Your task to perform on an android device: turn off picture-in-picture Image 0: 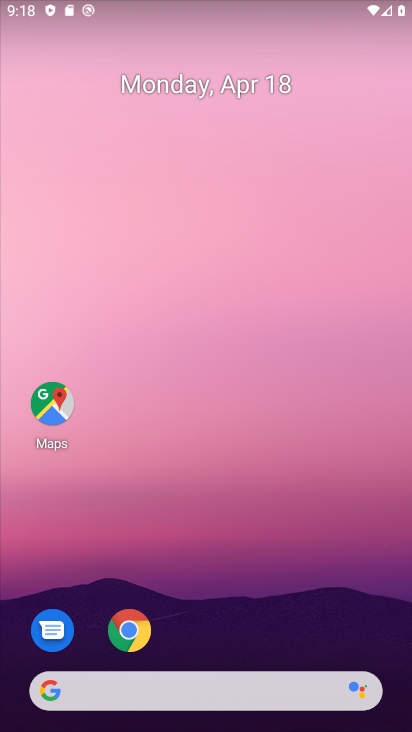
Step 0: drag from (197, 657) to (389, 105)
Your task to perform on an android device: turn off picture-in-picture Image 1: 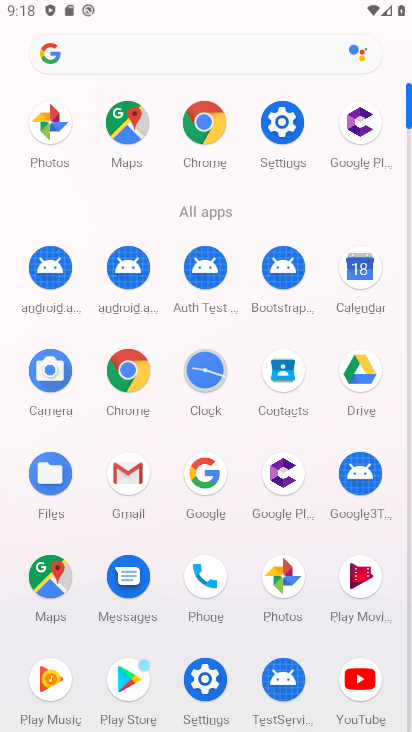
Step 1: click (284, 129)
Your task to perform on an android device: turn off picture-in-picture Image 2: 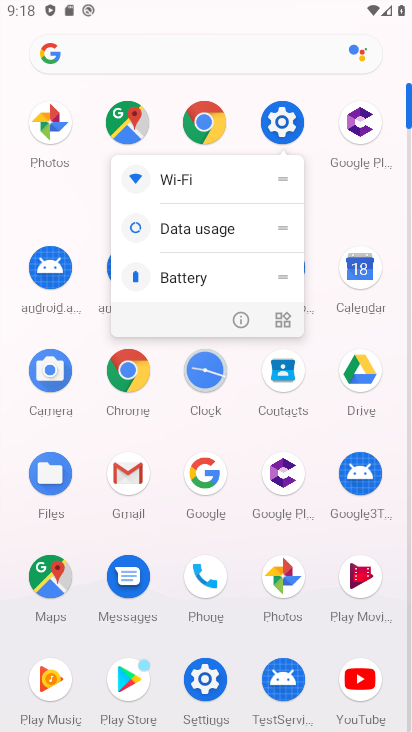
Step 2: click (290, 118)
Your task to perform on an android device: turn off picture-in-picture Image 3: 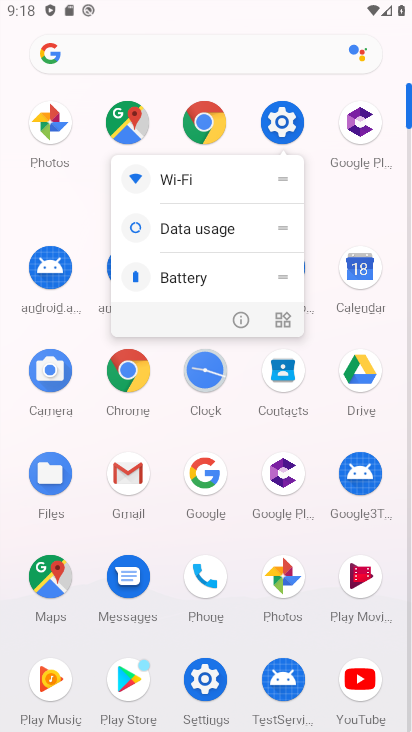
Step 3: click (271, 121)
Your task to perform on an android device: turn off picture-in-picture Image 4: 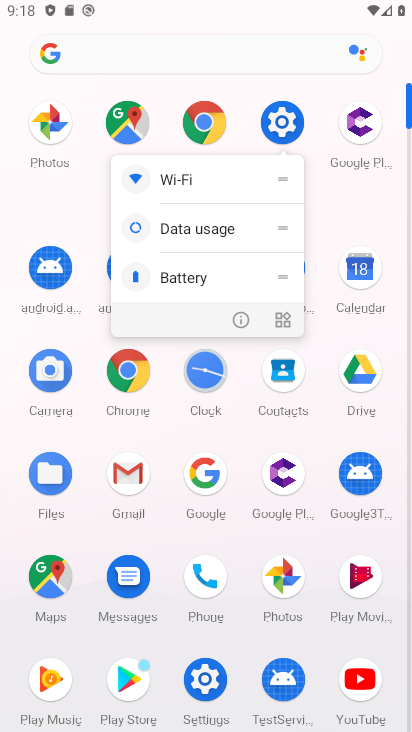
Step 4: click (285, 120)
Your task to perform on an android device: turn off picture-in-picture Image 5: 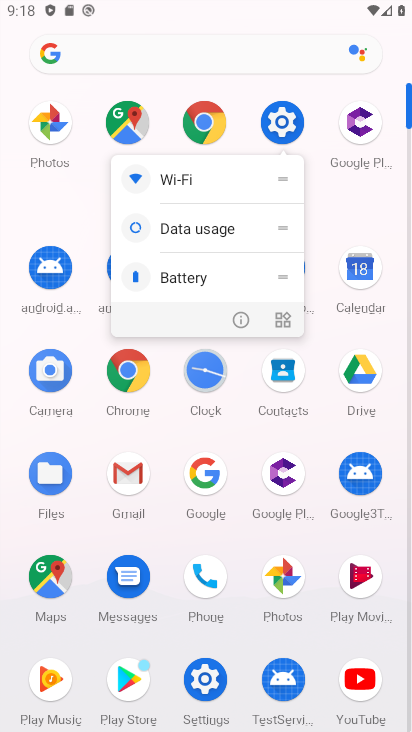
Step 5: click (287, 100)
Your task to perform on an android device: turn off picture-in-picture Image 6: 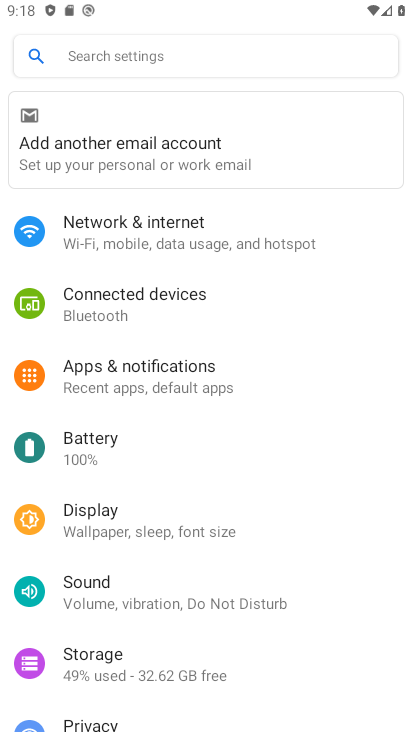
Step 6: click (223, 386)
Your task to perform on an android device: turn off picture-in-picture Image 7: 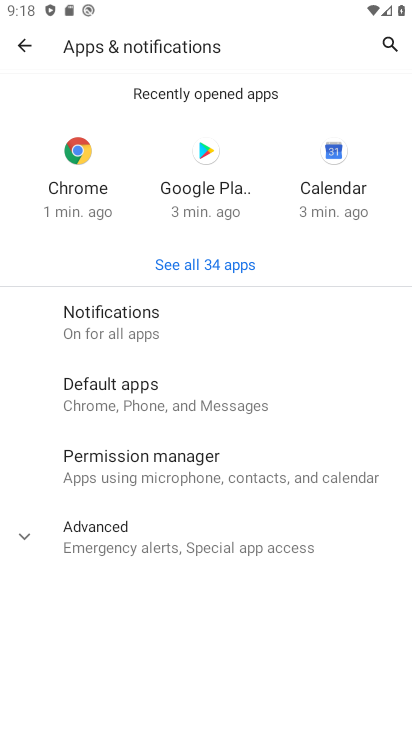
Step 7: click (249, 550)
Your task to perform on an android device: turn off picture-in-picture Image 8: 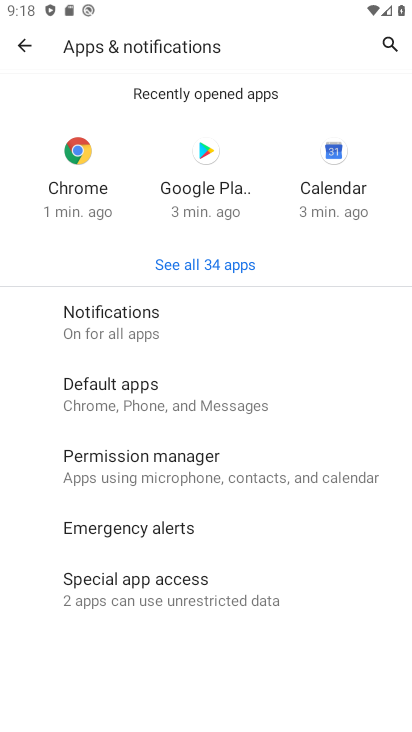
Step 8: drag from (261, 489) to (332, 352)
Your task to perform on an android device: turn off picture-in-picture Image 9: 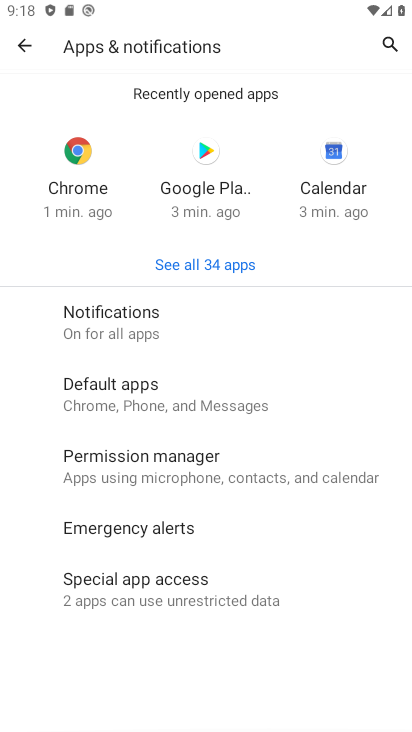
Step 9: click (206, 597)
Your task to perform on an android device: turn off picture-in-picture Image 10: 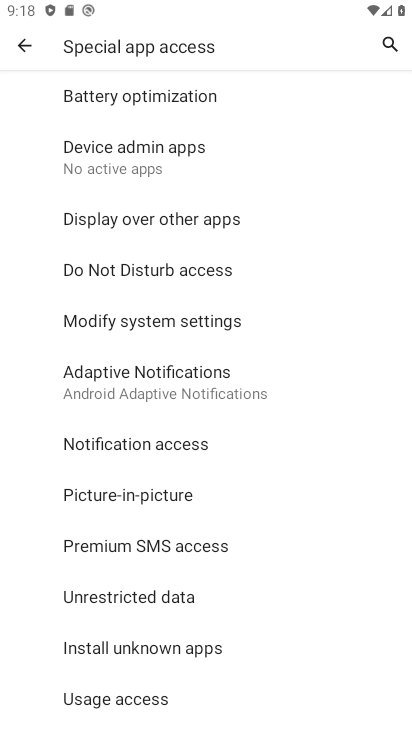
Step 10: click (194, 498)
Your task to perform on an android device: turn off picture-in-picture Image 11: 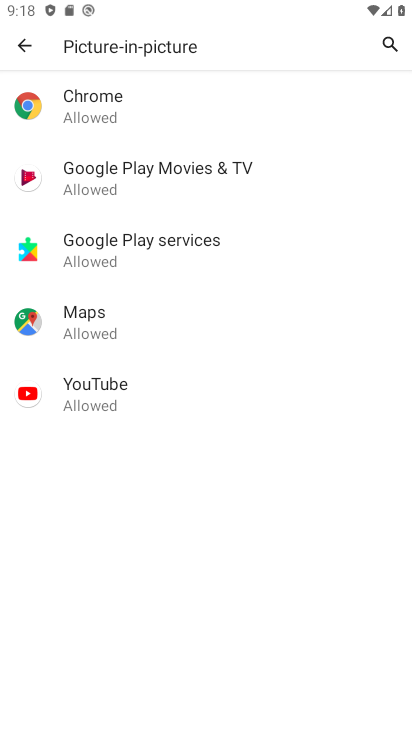
Step 11: click (245, 117)
Your task to perform on an android device: turn off picture-in-picture Image 12: 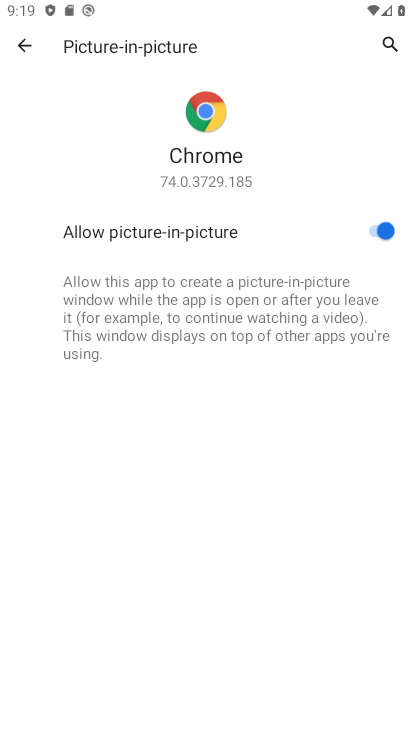
Step 12: click (375, 225)
Your task to perform on an android device: turn off picture-in-picture Image 13: 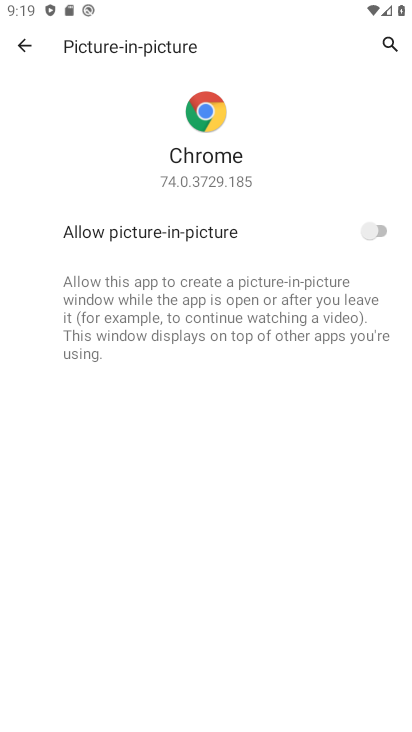
Step 13: click (33, 44)
Your task to perform on an android device: turn off picture-in-picture Image 14: 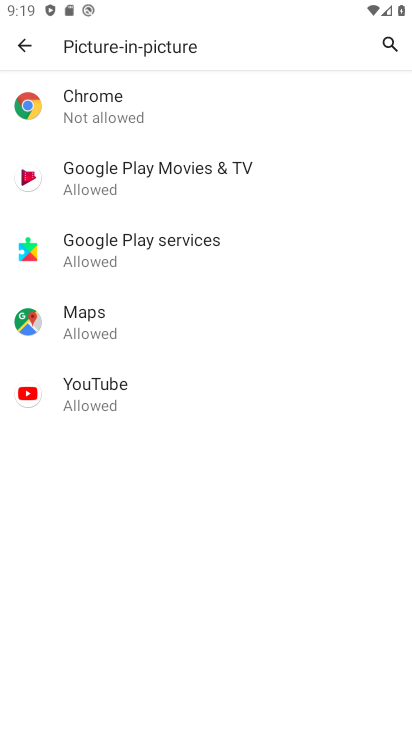
Step 14: click (155, 196)
Your task to perform on an android device: turn off picture-in-picture Image 15: 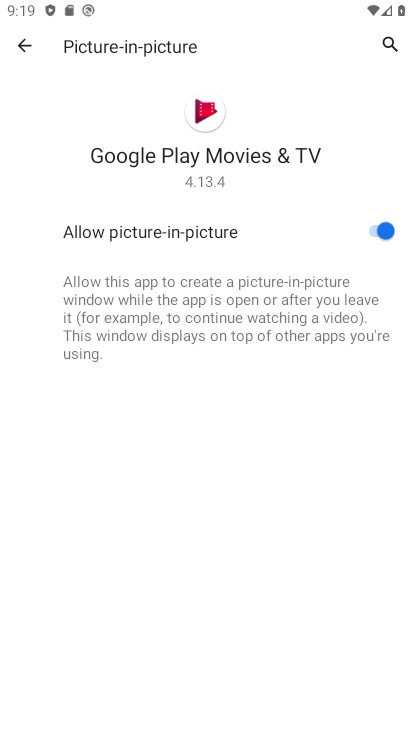
Step 15: click (364, 229)
Your task to perform on an android device: turn off picture-in-picture Image 16: 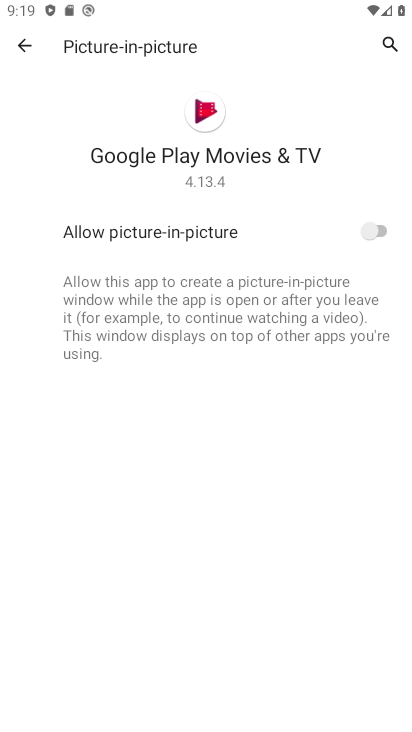
Step 16: press back button
Your task to perform on an android device: turn off picture-in-picture Image 17: 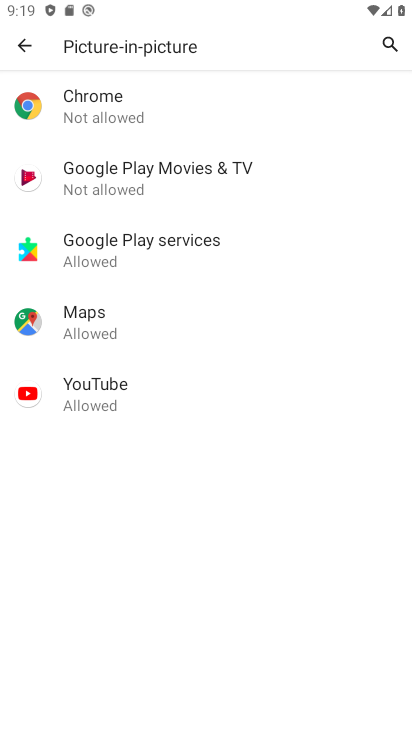
Step 17: click (192, 259)
Your task to perform on an android device: turn off picture-in-picture Image 18: 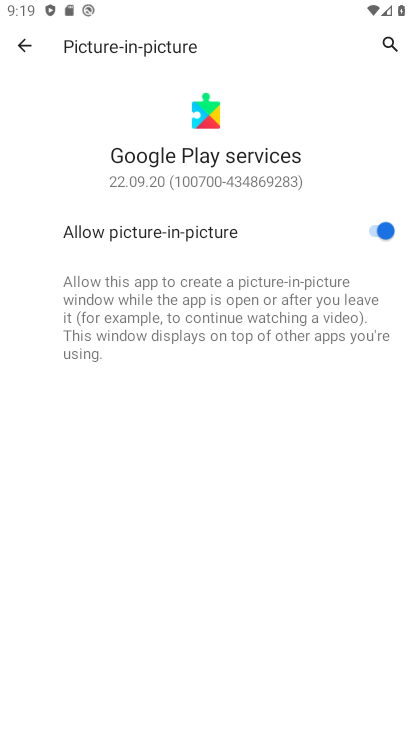
Step 18: click (384, 232)
Your task to perform on an android device: turn off picture-in-picture Image 19: 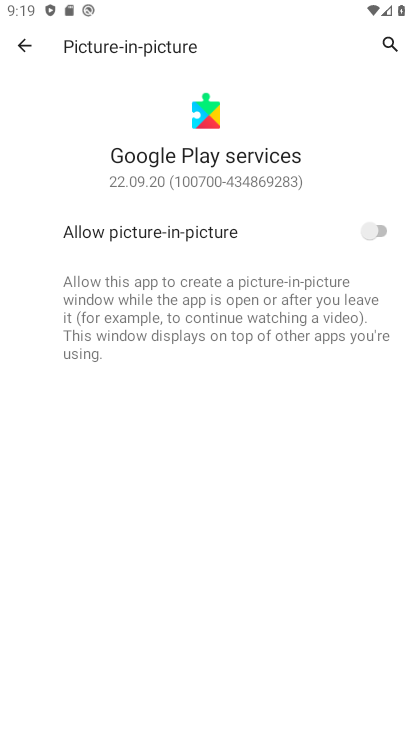
Step 19: press back button
Your task to perform on an android device: turn off picture-in-picture Image 20: 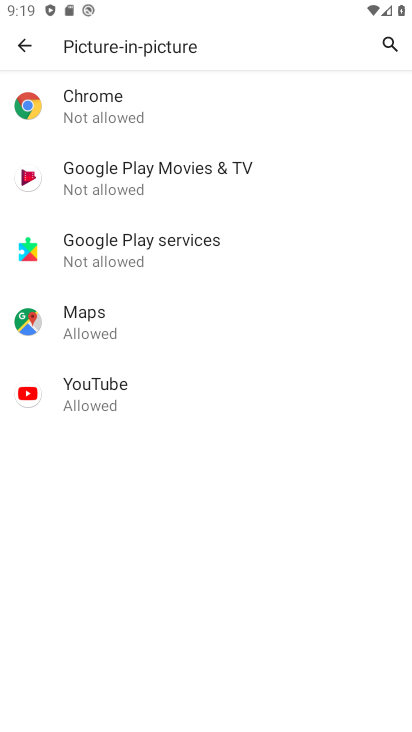
Step 20: click (198, 314)
Your task to perform on an android device: turn off picture-in-picture Image 21: 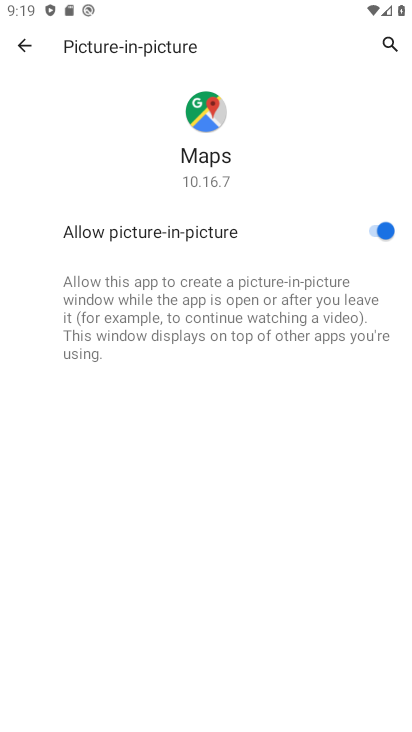
Step 21: click (366, 231)
Your task to perform on an android device: turn off picture-in-picture Image 22: 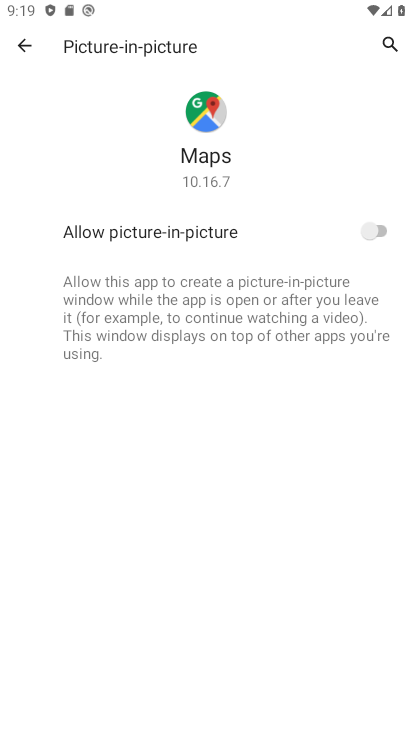
Step 22: press back button
Your task to perform on an android device: turn off picture-in-picture Image 23: 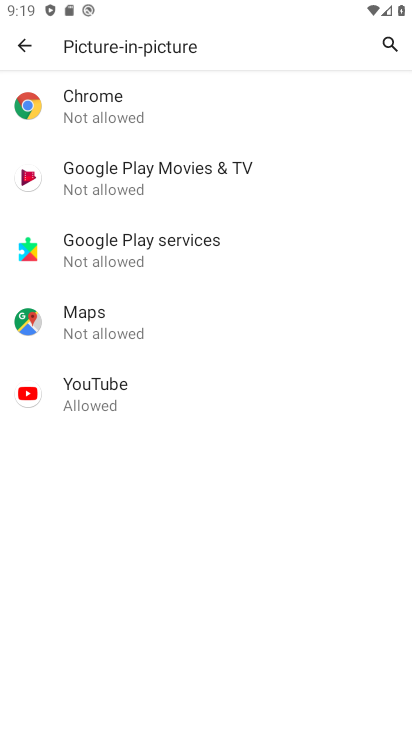
Step 23: click (130, 403)
Your task to perform on an android device: turn off picture-in-picture Image 24: 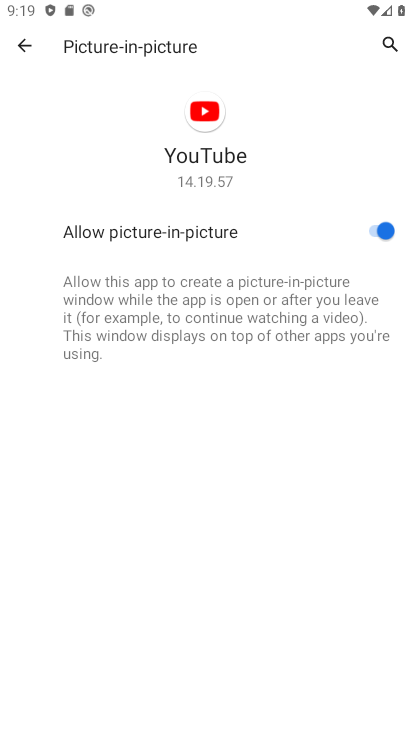
Step 24: click (379, 223)
Your task to perform on an android device: turn off picture-in-picture Image 25: 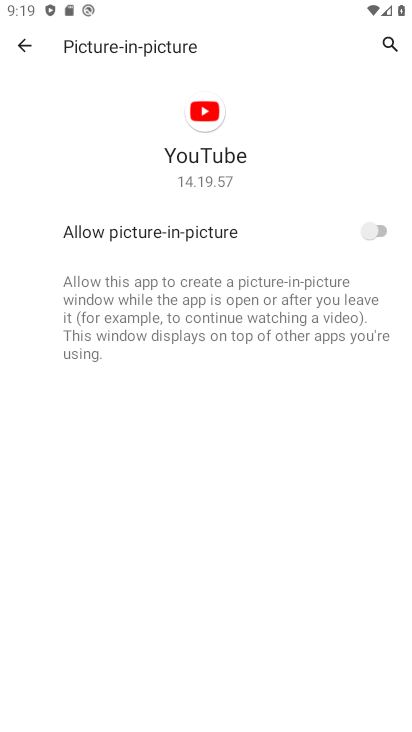
Step 25: task complete